Your task to perform on an android device: check out phone information Image 0: 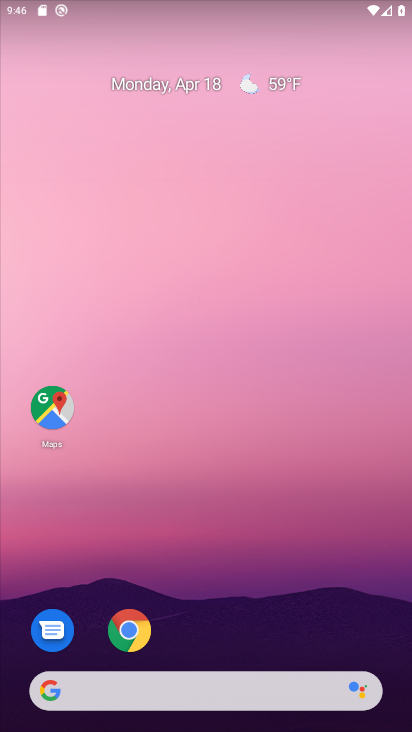
Step 0: drag from (337, 568) to (378, 21)
Your task to perform on an android device: check out phone information Image 1: 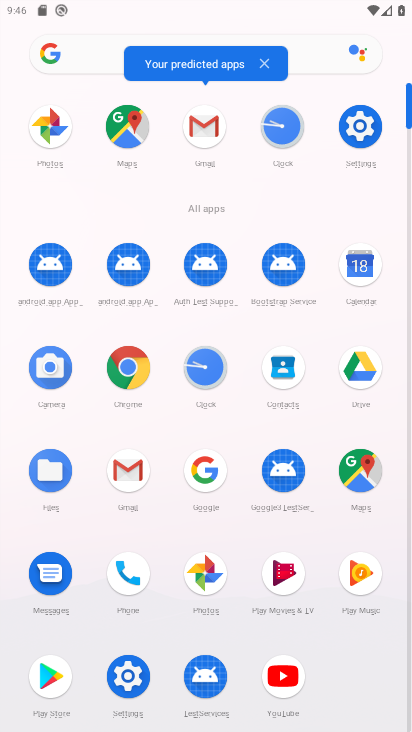
Step 1: click (360, 126)
Your task to perform on an android device: check out phone information Image 2: 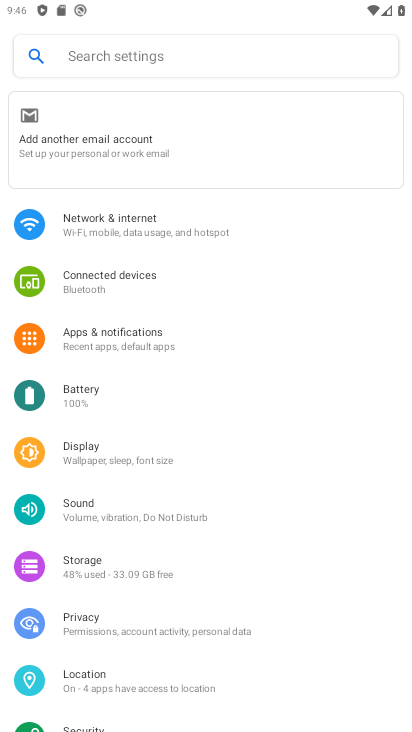
Step 2: drag from (141, 510) to (212, 137)
Your task to perform on an android device: check out phone information Image 3: 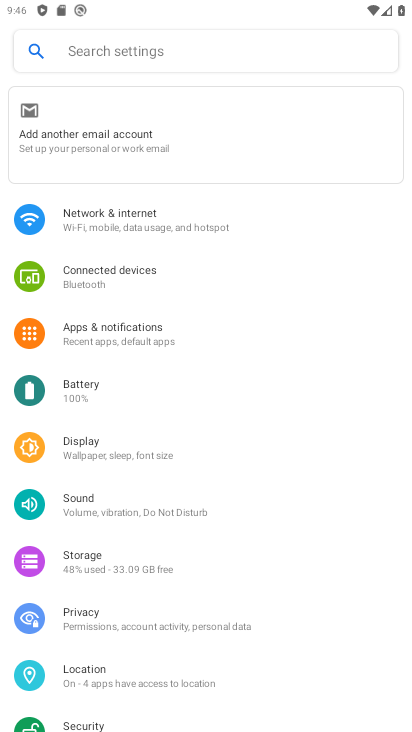
Step 3: drag from (224, 282) to (268, 122)
Your task to perform on an android device: check out phone information Image 4: 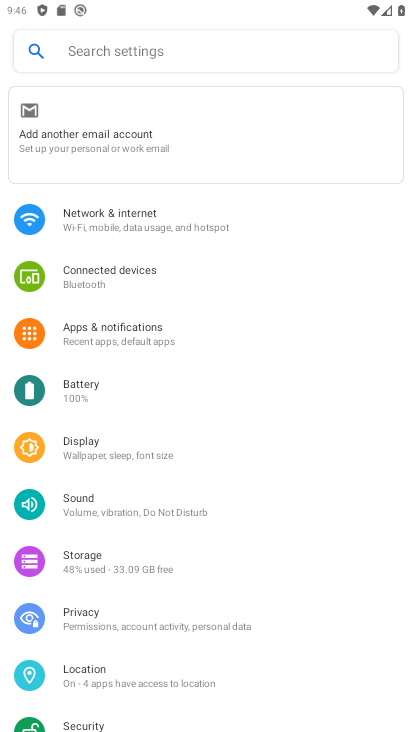
Step 4: drag from (159, 604) to (181, 106)
Your task to perform on an android device: check out phone information Image 5: 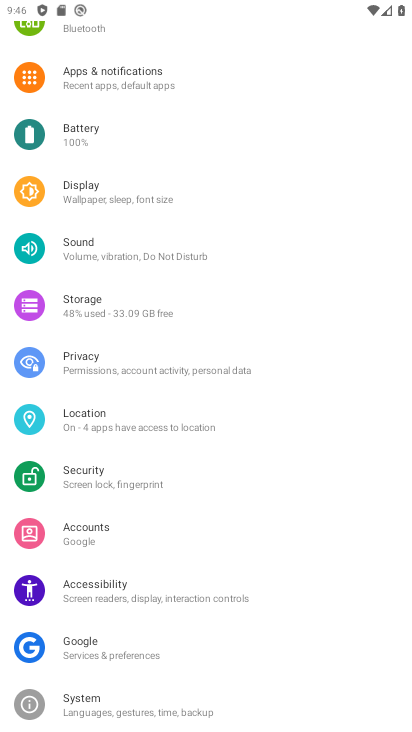
Step 5: click (147, 712)
Your task to perform on an android device: check out phone information Image 6: 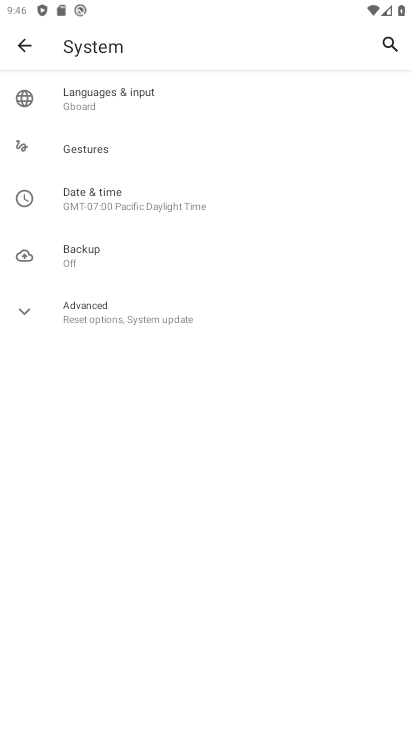
Step 6: click (21, 40)
Your task to perform on an android device: check out phone information Image 7: 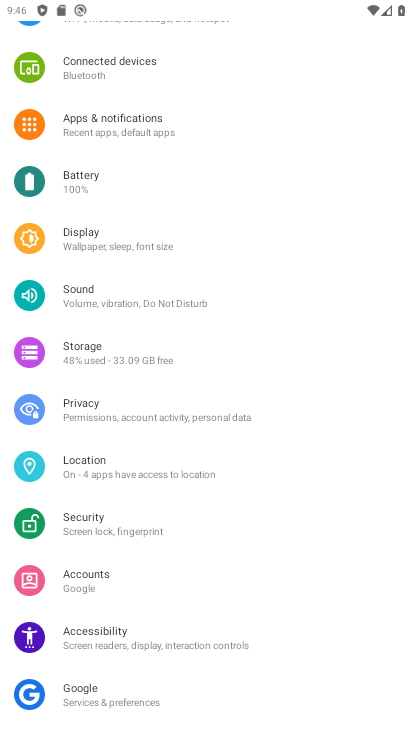
Step 7: drag from (184, 380) to (195, 604)
Your task to perform on an android device: check out phone information Image 8: 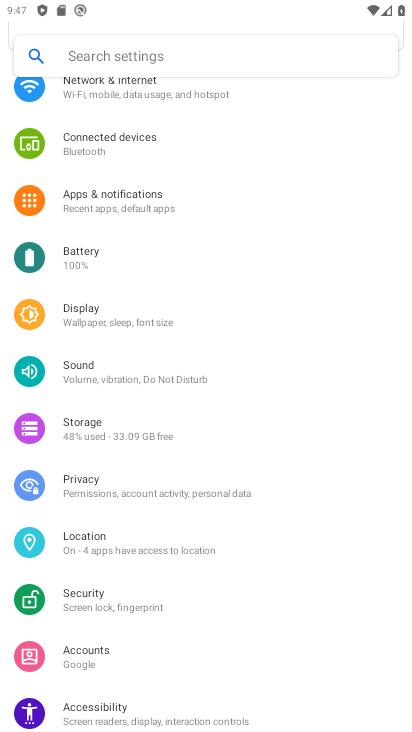
Step 8: drag from (237, 310) to (223, 545)
Your task to perform on an android device: check out phone information Image 9: 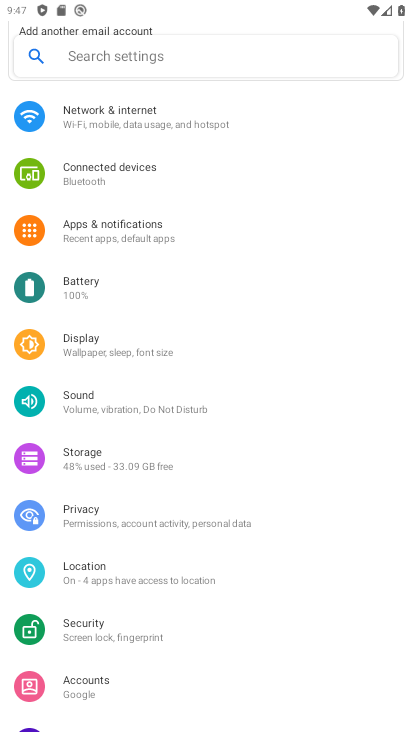
Step 9: drag from (233, 218) to (215, 534)
Your task to perform on an android device: check out phone information Image 10: 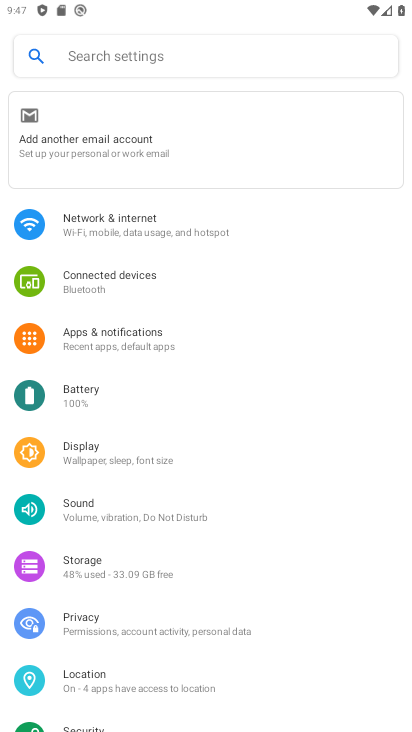
Step 10: drag from (201, 502) to (225, 153)
Your task to perform on an android device: check out phone information Image 11: 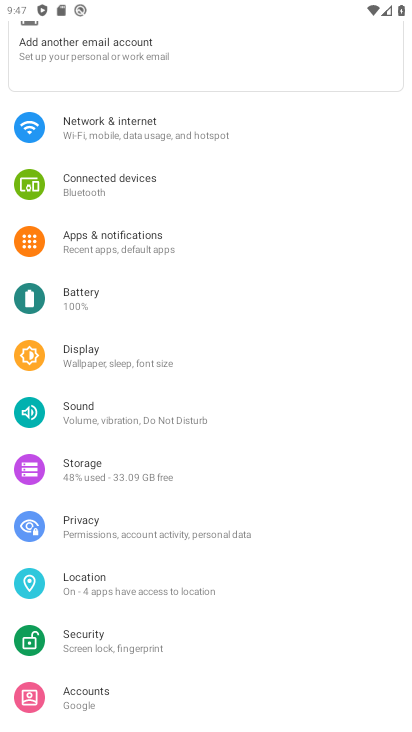
Step 11: drag from (170, 463) to (234, 111)
Your task to perform on an android device: check out phone information Image 12: 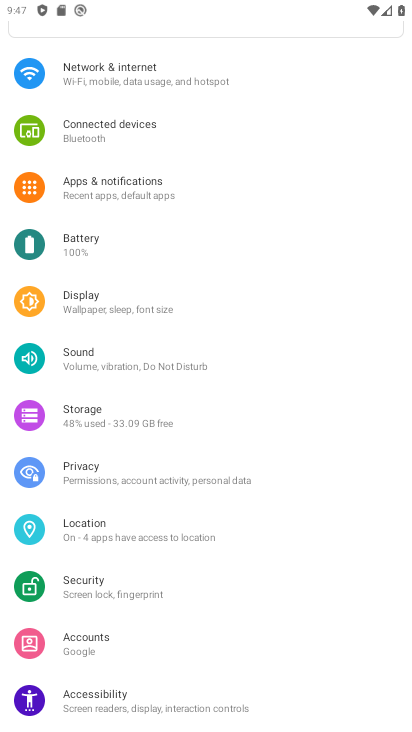
Step 12: drag from (106, 619) to (168, 209)
Your task to perform on an android device: check out phone information Image 13: 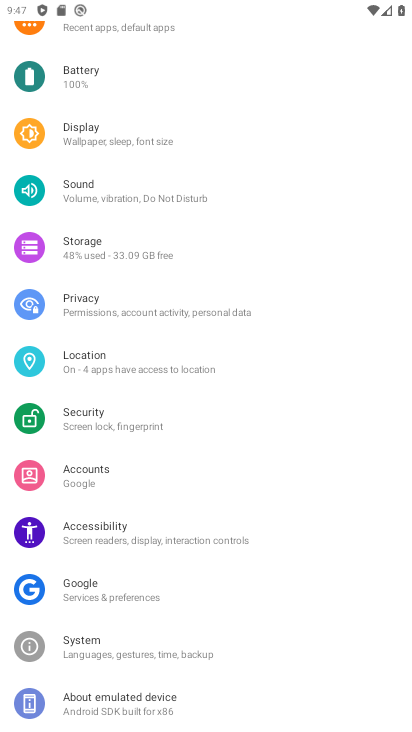
Step 13: drag from (112, 631) to (121, 313)
Your task to perform on an android device: check out phone information Image 14: 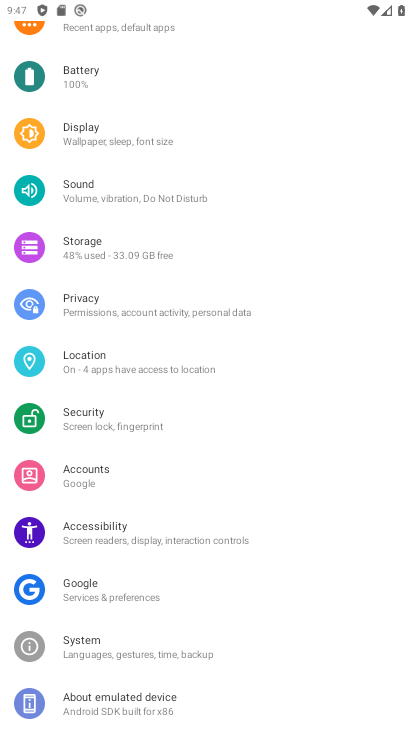
Step 14: click (107, 704)
Your task to perform on an android device: check out phone information Image 15: 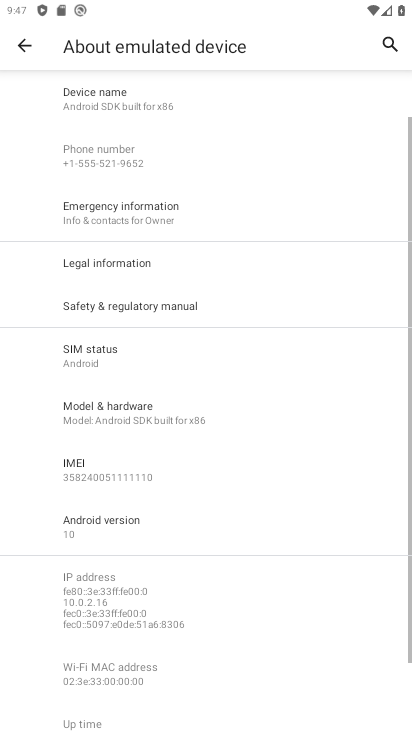
Step 15: task complete